Your task to perform on an android device: Go to display settings Image 0: 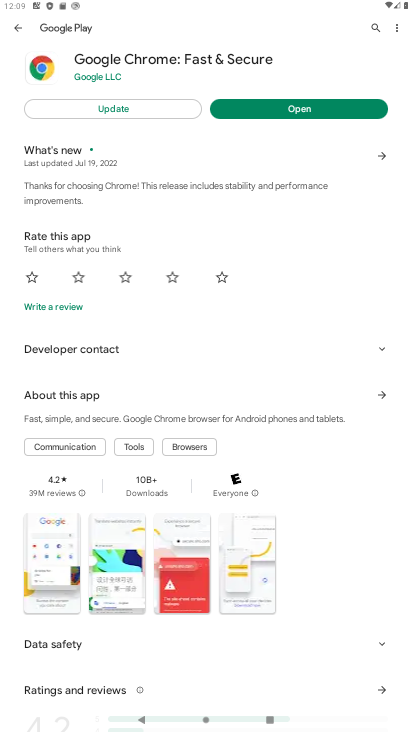
Step 0: press home button
Your task to perform on an android device: Go to display settings Image 1: 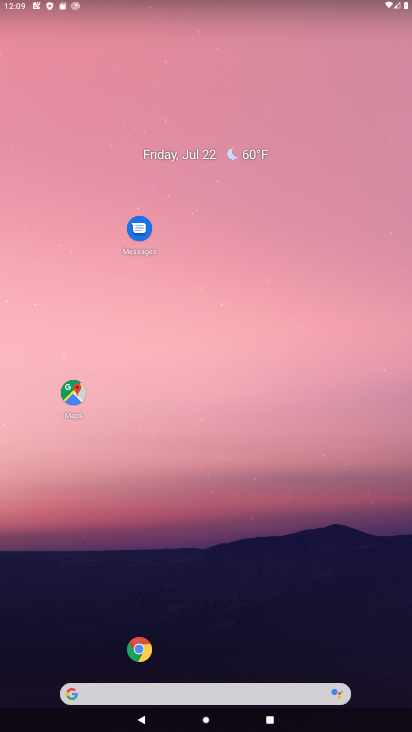
Step 1: drag from (63, 713) to (217, 222)
Your task to perform on an android device: Go to display settings Image 2: 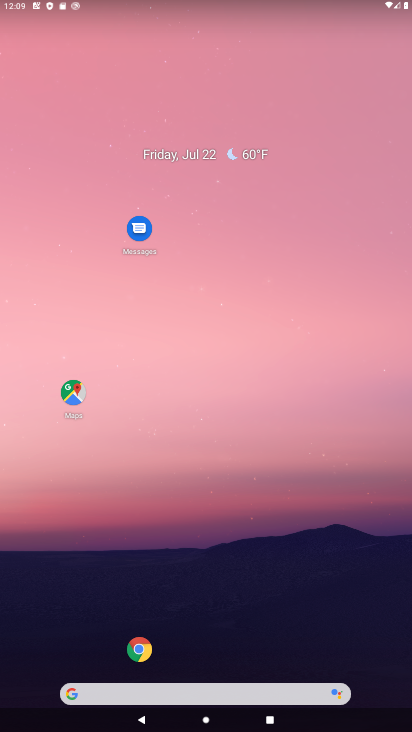
Step 2: drag from (80, 485) to (186, 166)
Your task to perform on an android device: Go to display settings Image 3: 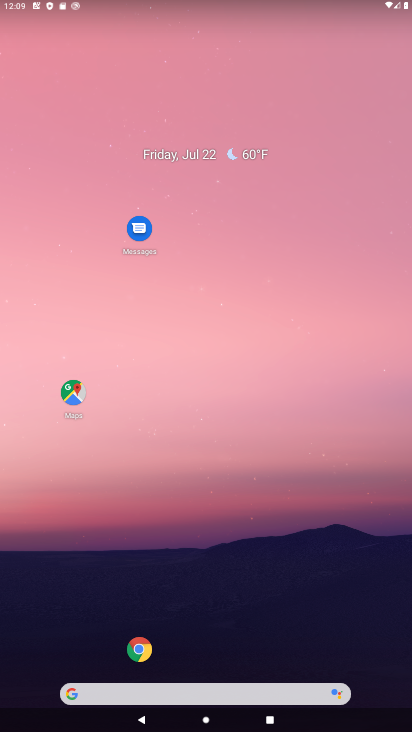
Step 3: drag from (20, 659) to (184, 274)
Your task to perform on an android device: Go to display settings Image 4: 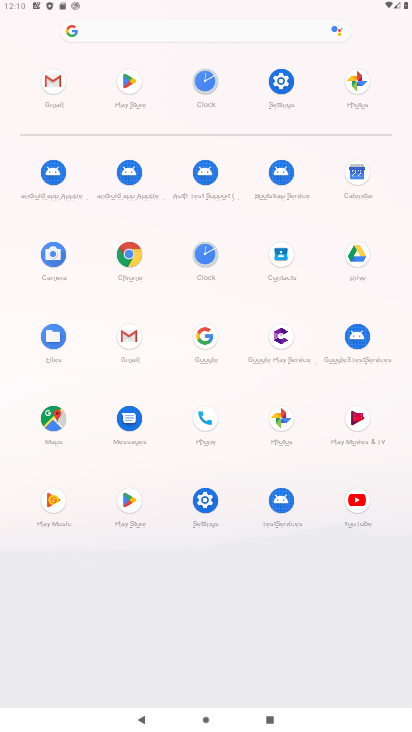
Step 4: click (214, 501)
Your task to perform on an android device: Go to display settings Image 5: 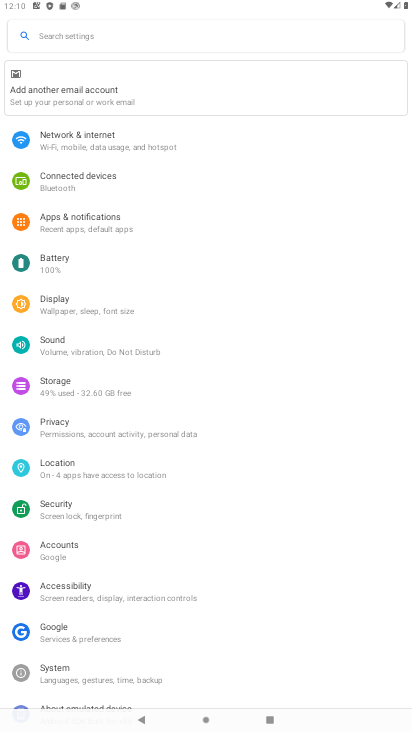
Step 5: click (77, 269)
Your task to perform on an android device: Go to display settings Image 6: 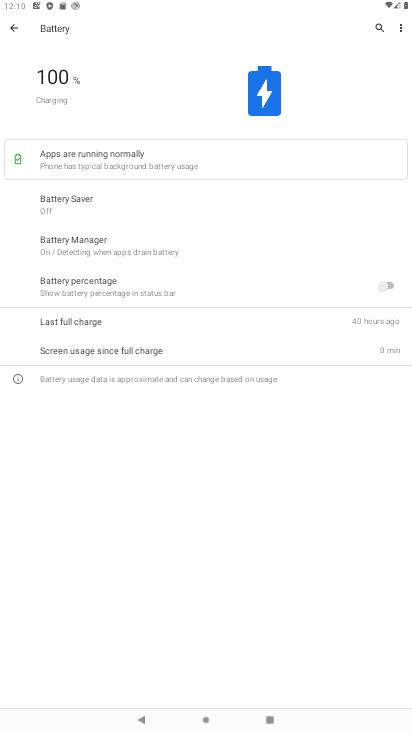
Step 6: click (16, 26)
Your task to perform on an android device: Go to display settings Image 7: 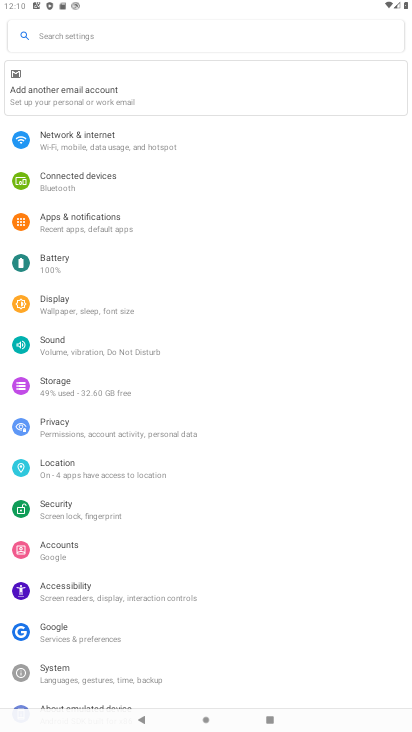
Step 7: click (60, 319)
Your task to perform on an android device: Go to display settings Image 8: 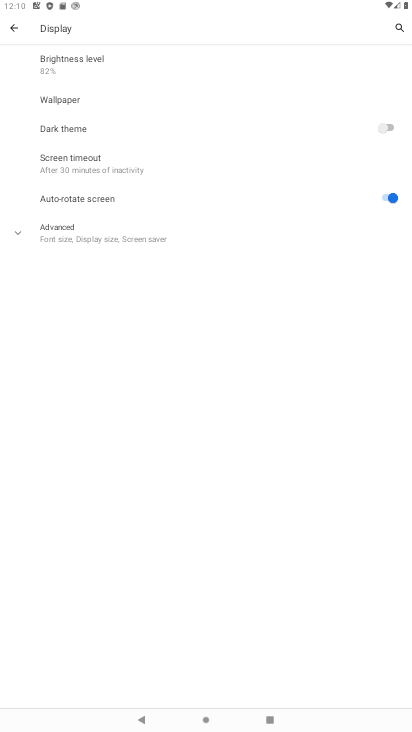
Step 8: click (71, 301)
Your task to perform on an android device: Go to display settings Image 9: 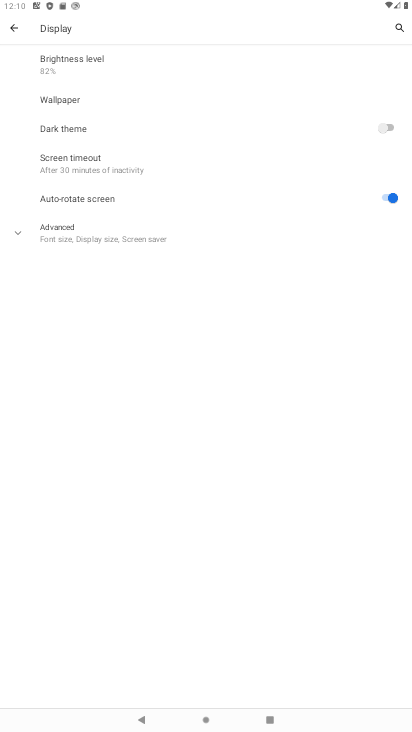
Step 9: task complete